Your task to perform on an android device: Open Google Image 0: 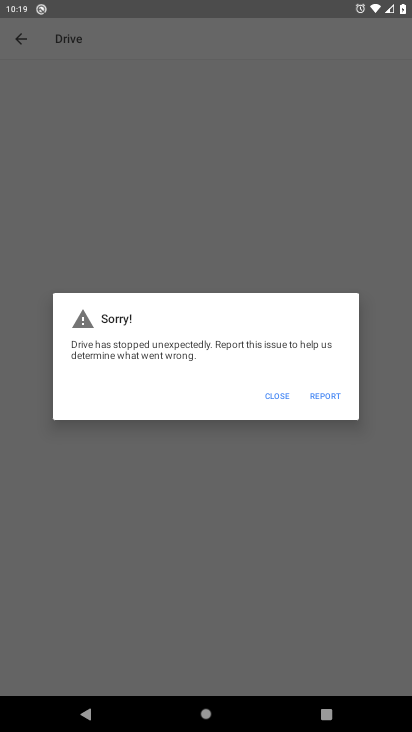
Step 0: drag from (42, 717) to (153, 225)
Your task to perform on an android device: Open Google Image 1: 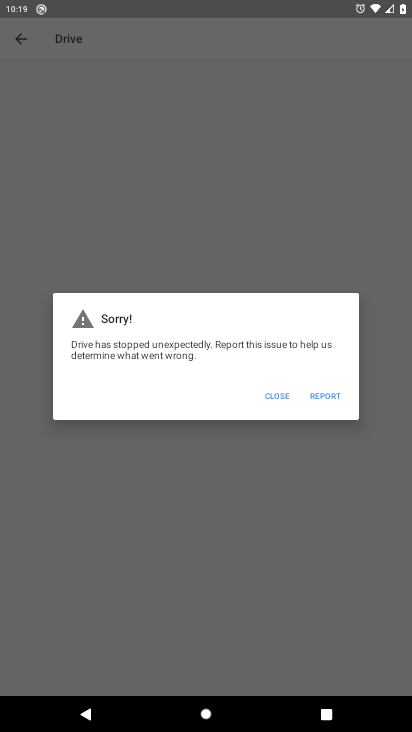
Step 1: press home button
Your task to perform on an android device: Open Google Image 2: 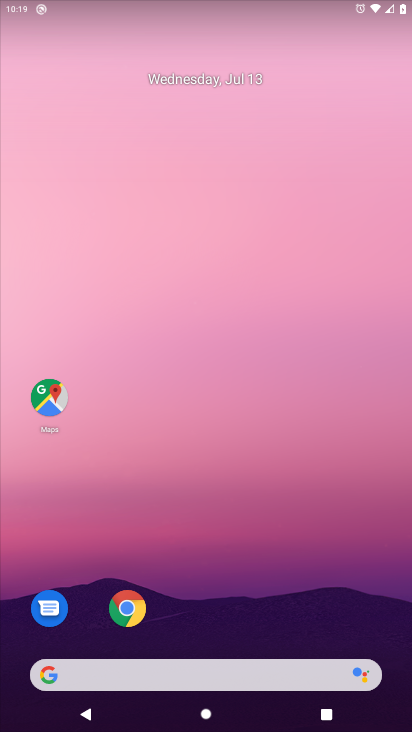
Step 2: click (84, 677)
Your task to perform on an android device: Open Google Image 3: 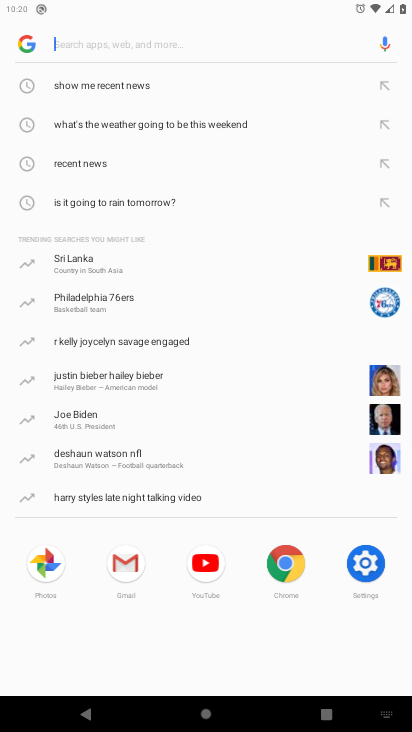
Step 3: task complete